Your task to perform on an android device: add a contact Image 0: 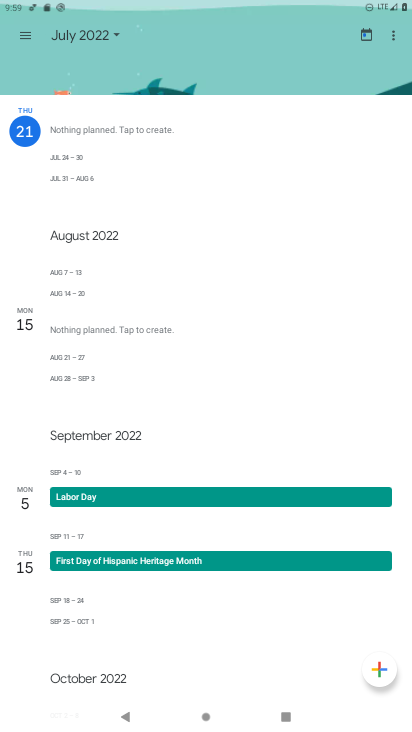
Step 0: press home button
Your task to perform on an android device: add a contact Image 1: 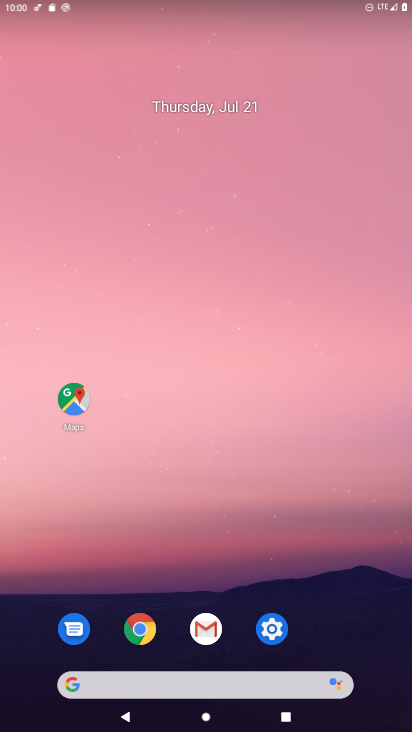
Step 1: drag from (341, 536) to (409, 193)
Your task to perform on an android device: add a contact Image 2: 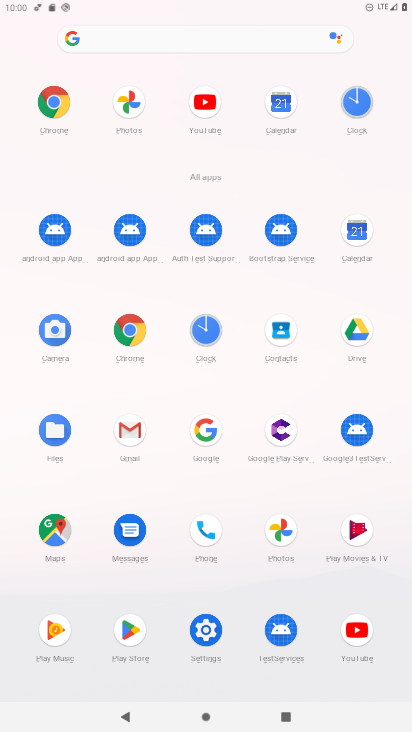
Step 2: click (198, 529)
Your task to perform on an android device: add a contact Image 3: 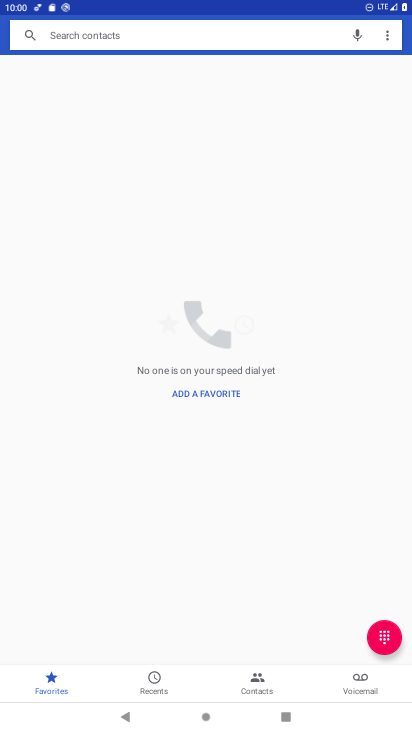
Step 3: click (257, 675)
Your task to perform on an android device: add a contact Image 4: 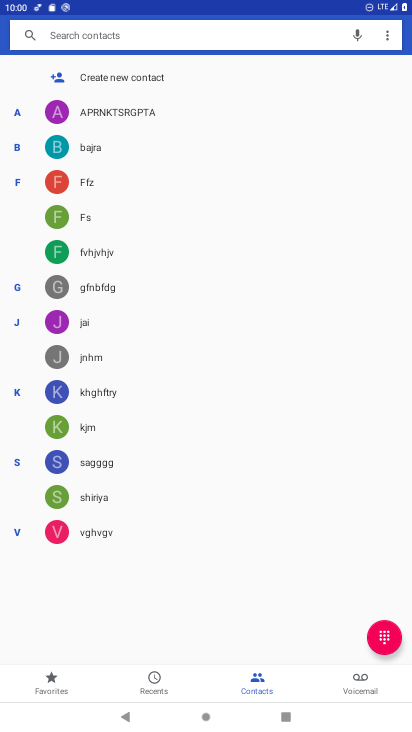
Step 4: click (120, 87)
Your task to perform on an android device: add a contact Image 5: 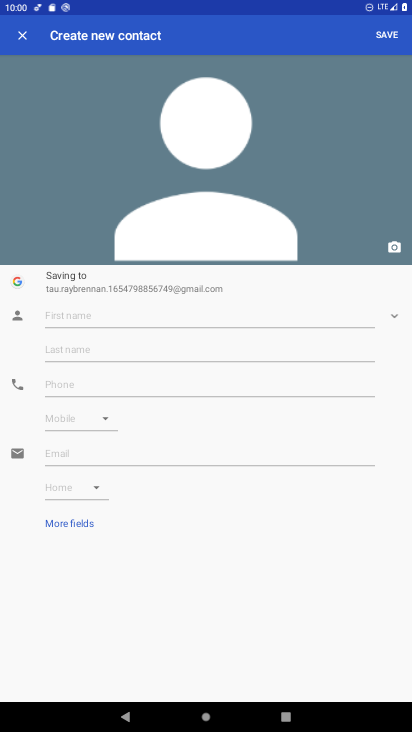
Step 5: click (123, 312)
Your task to perform on an android device: add a contact Image 6: 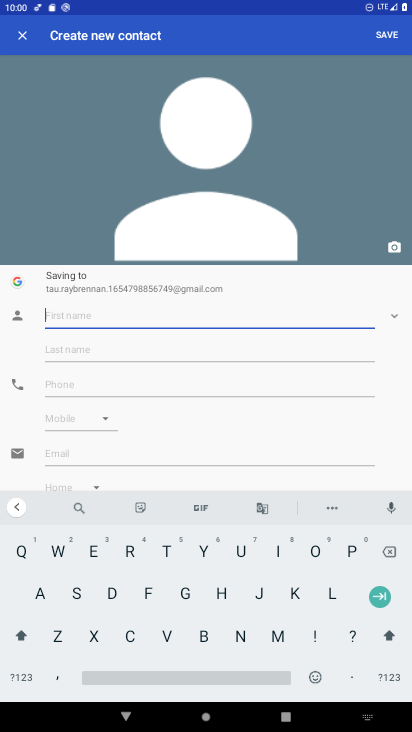
Step 6: click (125, 591)
Your task to perform on an android device: add a contact Image 7: 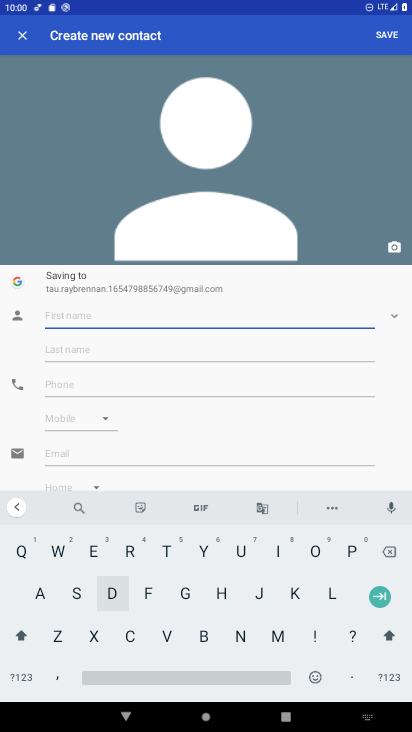
Step 7: click (162, 597)
Your task to perform on an android device: add a contact Image 8: 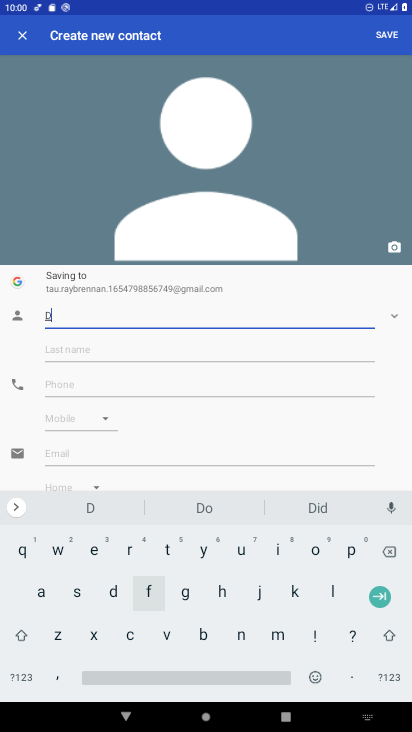
Step 8: click (204, 577)
Your task to perform on an android device: add a contact Image 9: 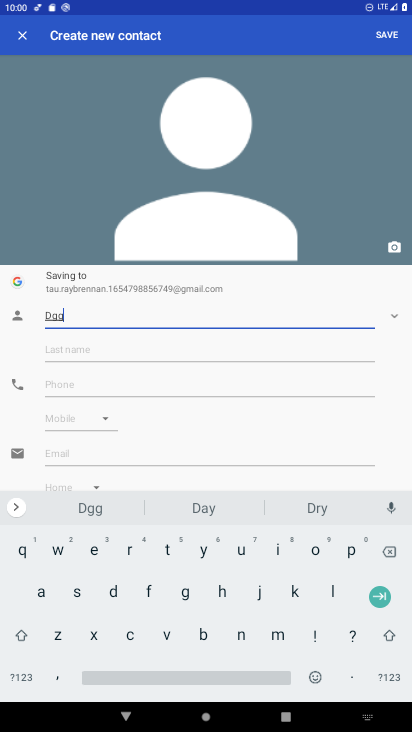
Step 9: click (206, 579)
Your task to perform on an android device: add a contact Image 10: 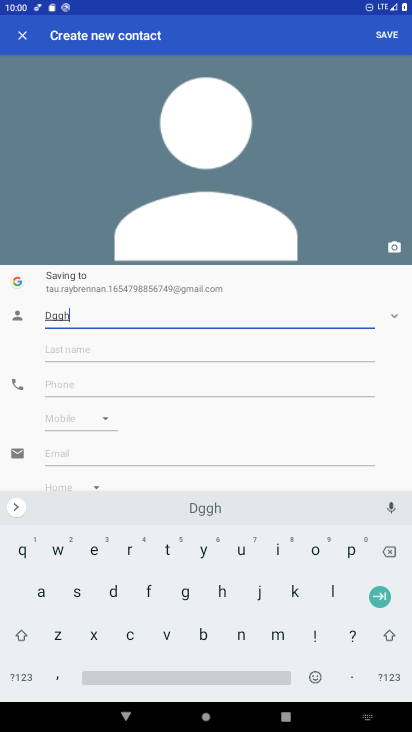
Step 10: click (81, 389)
Your task to perform on an android device: add a contact Image 11: 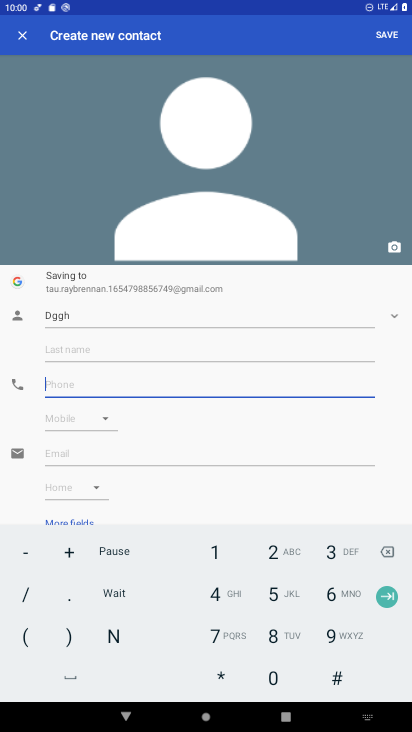
Step 11: click (327, 603)
Your task to perform on an android device: add a contact Image 12: 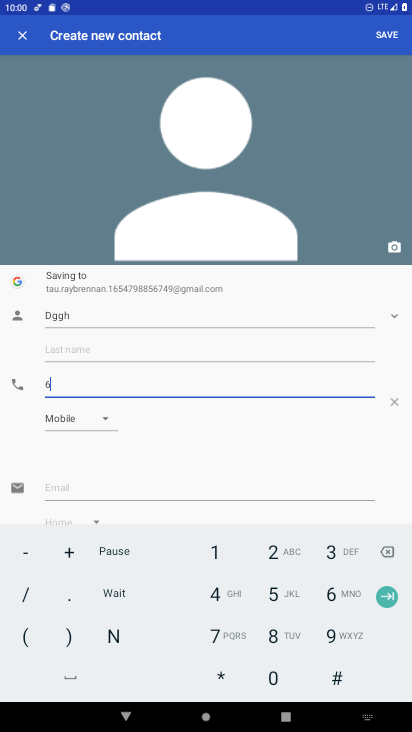
Step 12: click (276, 635)
Your task to perform on an android device: add a contact Image 13: 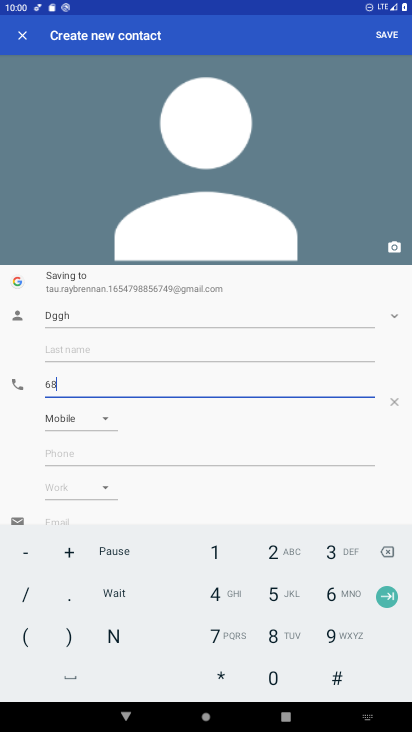
Step 13: drag from (263, 646) to (290, 675)
Your task to perform on an android device: add a contact Image 14: 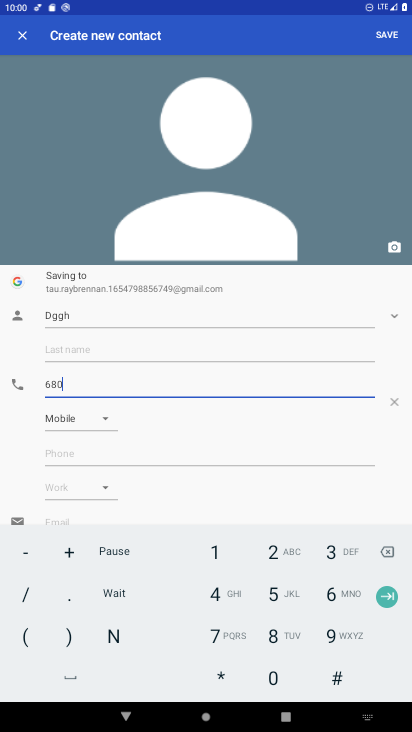
Step 14: click (274, 695)
Your task to perform on an android device: add a contact Image 15: 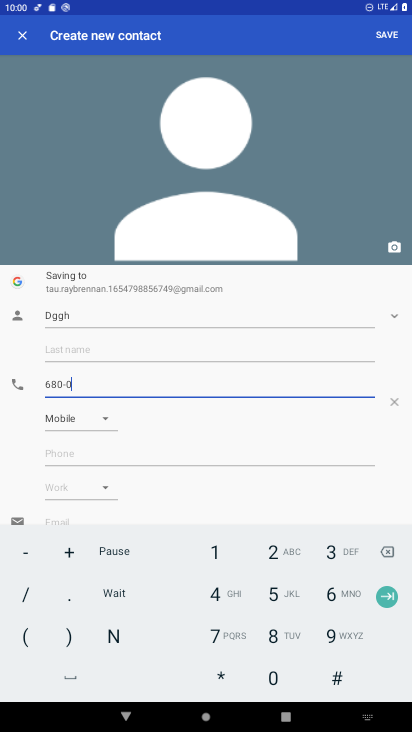
Step 15: click (320, 629)
Your task to perform on an android device: add a contact Image 16: 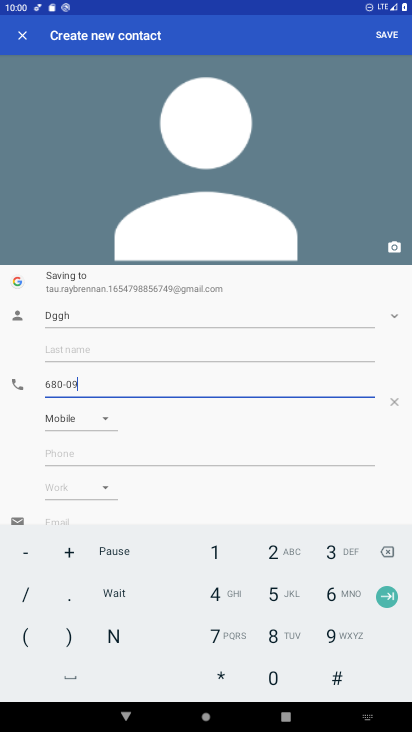
Step 16: click (233, 635)
Your task to perform on an android device: add a contact Image 17: 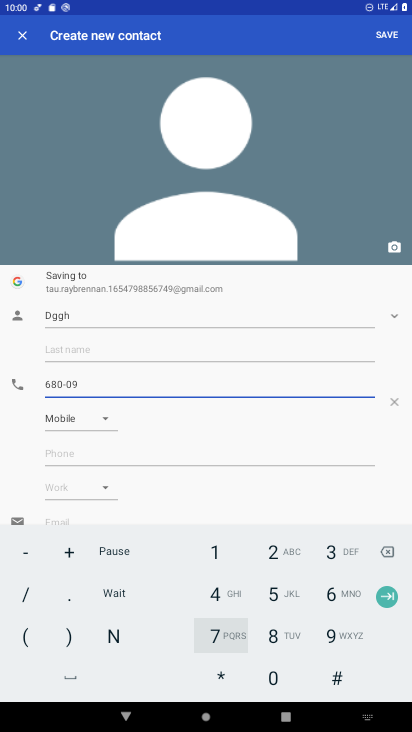
Step 17: drag from (238, 604) to (309, 553)
Your task to perform on an android device: add a contact Image 18: 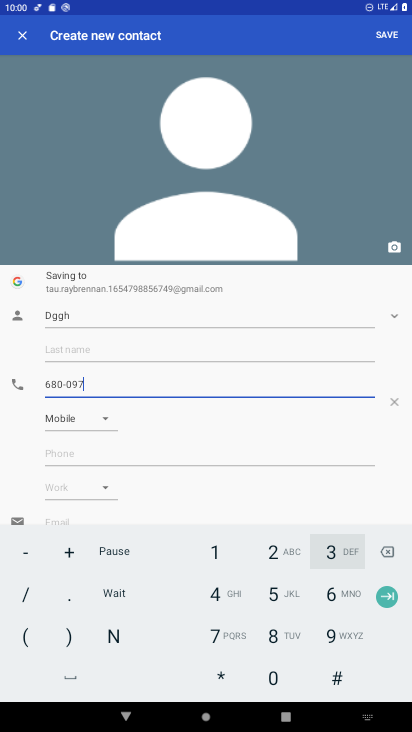
Step 18: click (274, 572)
Your task to perform on an android device: add a contact Image 19: 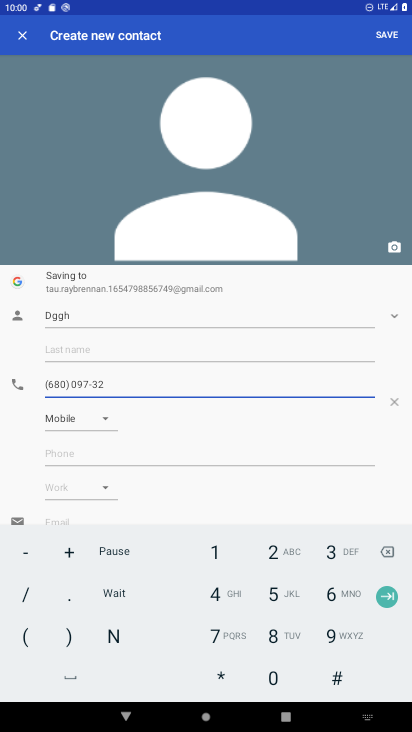
Step 19: click (324, 540)
Your task to perform on an android device: add a contact Image 20: 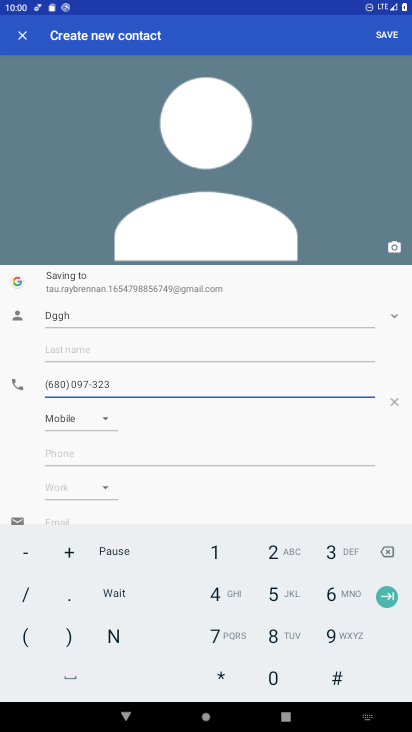
Step 20: click (382, 28)
Your task to perform on an android device: add a contact Image 21: 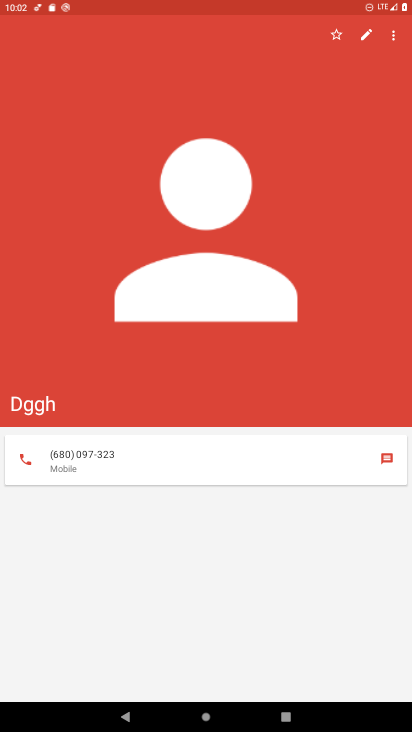
Step 21: task complete